Your task to perform on an android device: open chrome privacy settings Image 0: 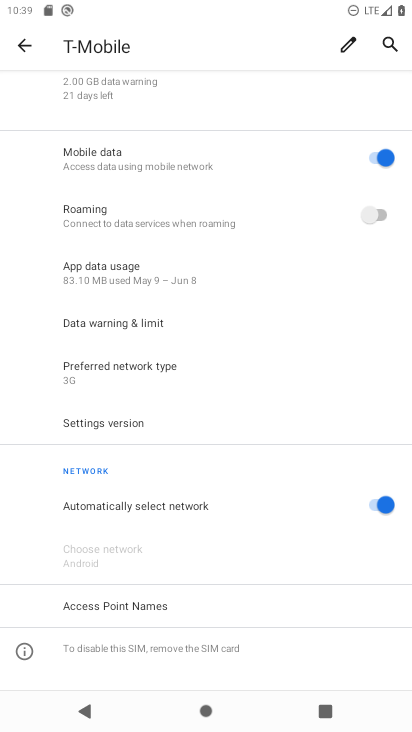
Step 0: press home button
Your task to perform on an android device: open chrome privacy settings Image 1: 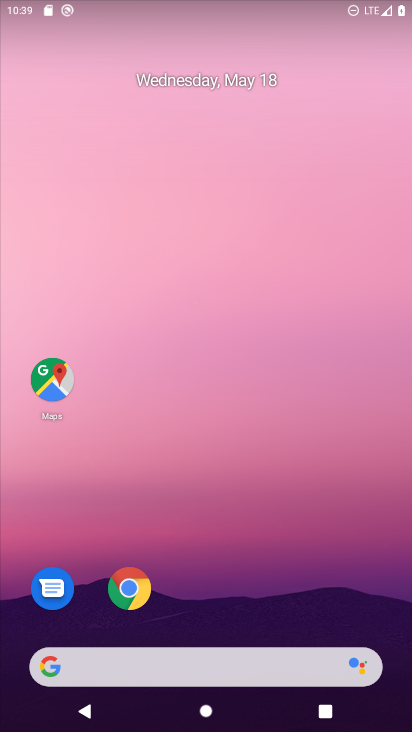
Step 1: click (137, 585)
Your task to perform on an android device: open chrome privacy settings Image 2: 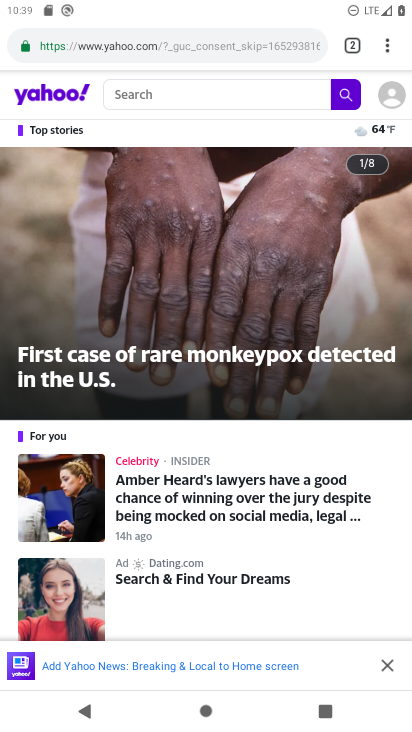
Step 2: click (390, 51)
Your task to perform on an android device: open chrome privacy settings Image 3: 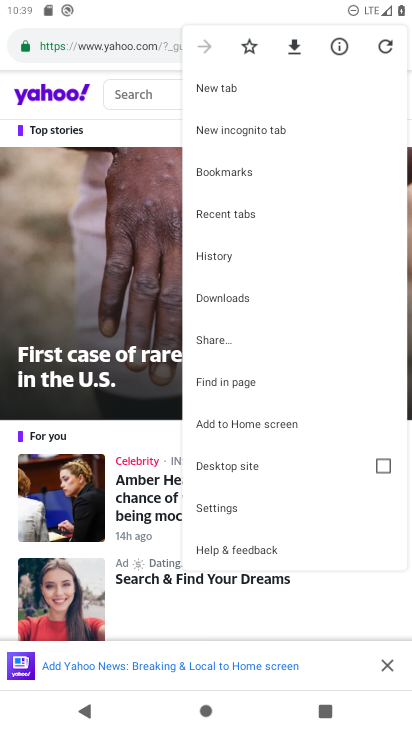
Step 3: click (217, 512)
Your task to perform on an android device: open chrome privacy settings Image 4: 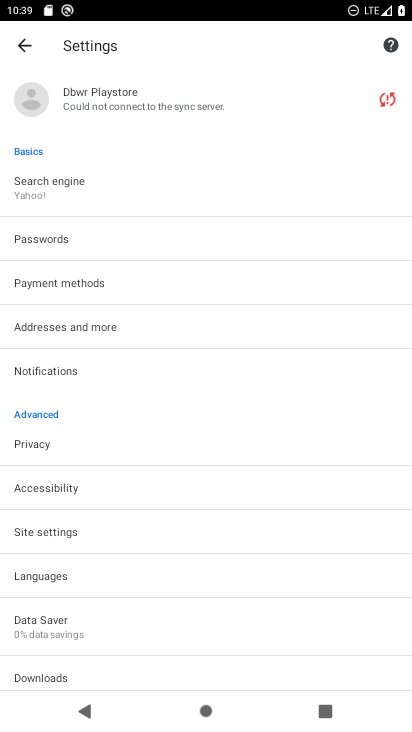
Step 4: click (22, 446)
Your task to perform on an android device: open chrome privacy settings Image 5: 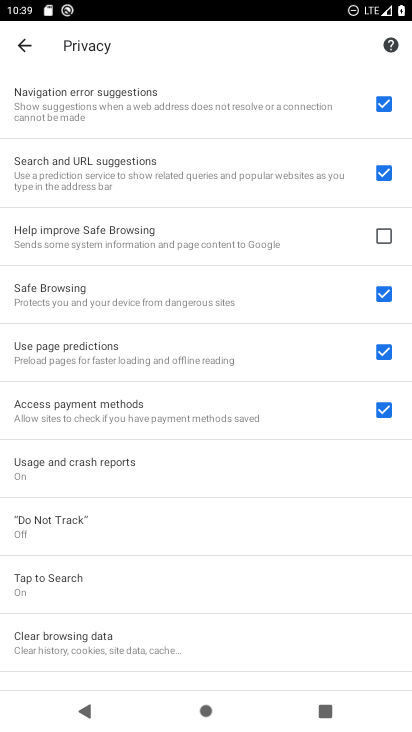
Step 5: task complete